Your task to perform on an android device: Show me productivity apps on the Play Store Image 0: 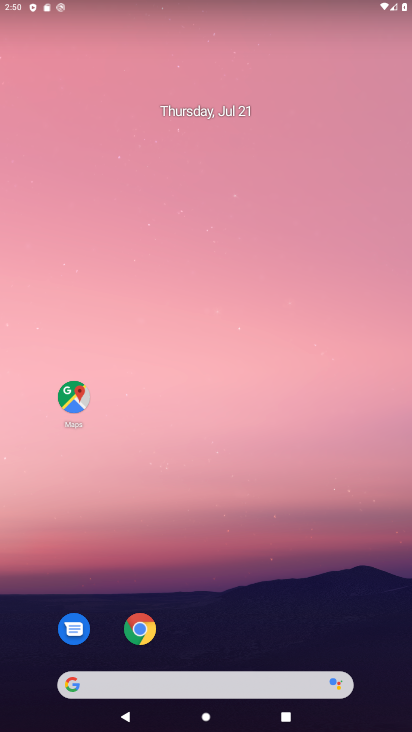
Step 0: drag from (211, 673) to (281, 43)
Your task to perform on an android device: Show me productivity apps on the Play Store Image 1: 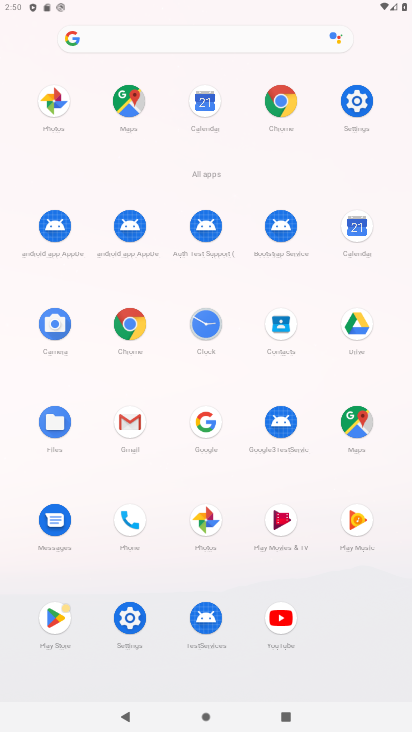
Step 1: click (47, 616)
Your task to perform on an android device: Show me productivity apps on the Play Store Image 2: 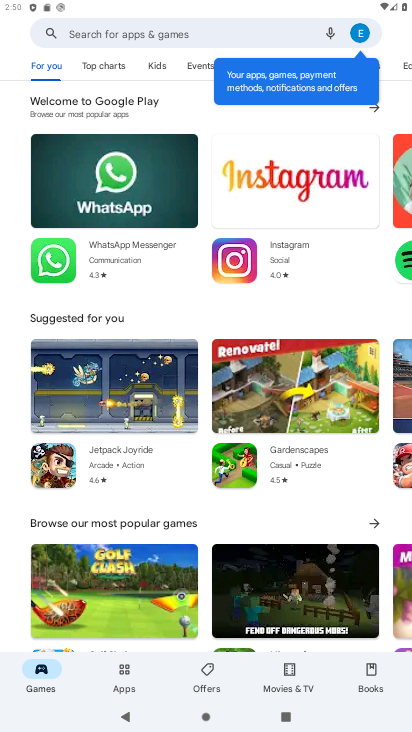
Step 2: click (186, 66)
Your task to perform on an android device: Show me productivity apps on the Play Store Image 3: 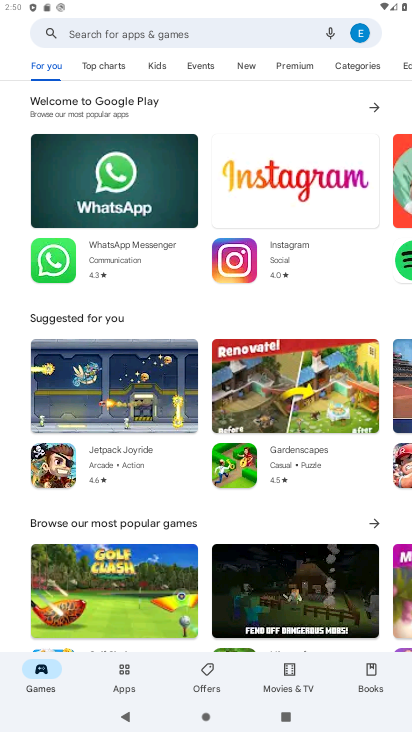
Step 3: click (122, 670)
Your task to perform on an android device: Show me productivity apps on the Play Store Image 4: 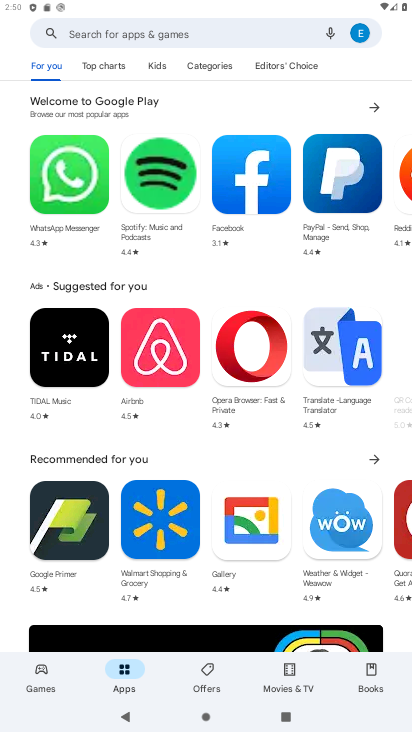
Step 4: click (223, 67)
Your task to perform on an android device: Show me productivity apps on the Play Store Image 5: 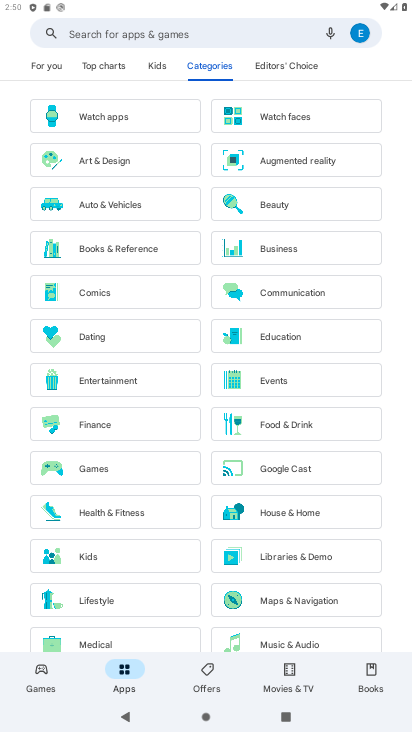
Step 5: drag from (161, 600) to (171, 265)
Your task to perform on an android device: Show me productivity apps on the Play Store Image 6: 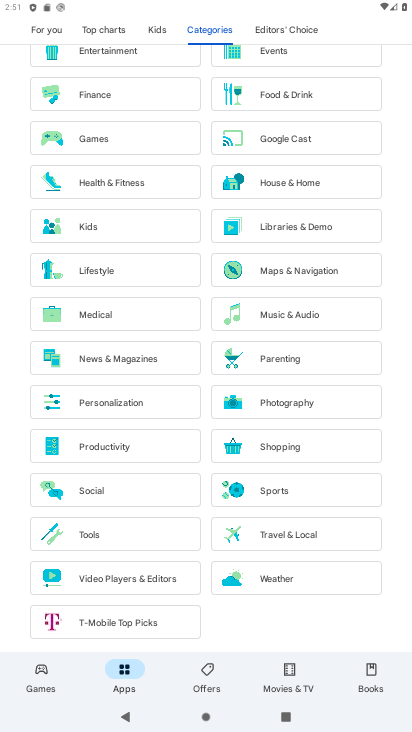
Step 6: click (123, 445)
Your task to perform on an android device: Show me productivity apps on the Play Store Image 7: 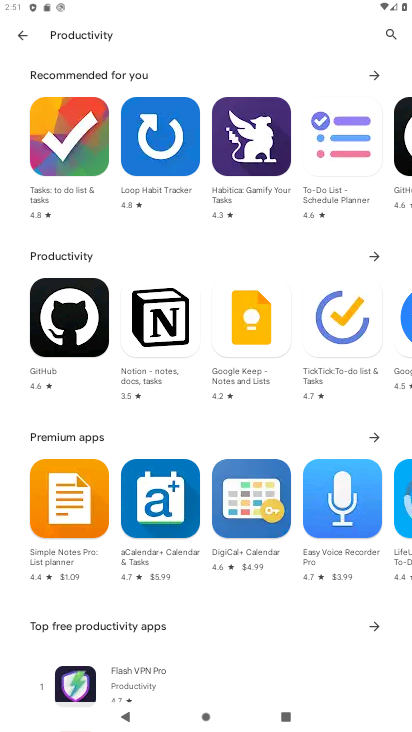
Step 7: task complete